Your task to perform on an android device: star an email in the gmail app Image 0: 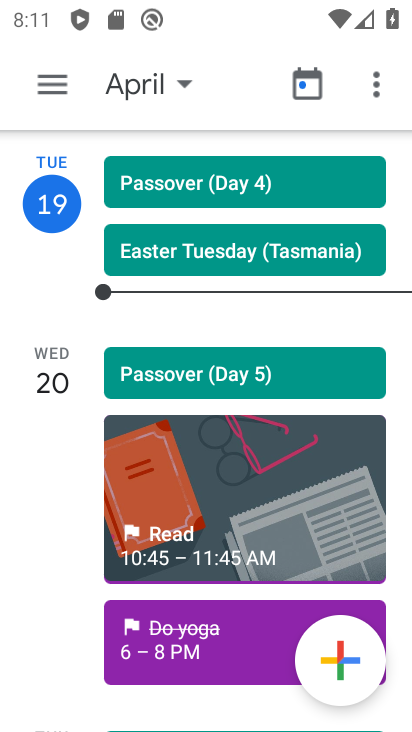
Step 0: press home button
Your task to perform on an android device: star an email in the gmail app Image 1: 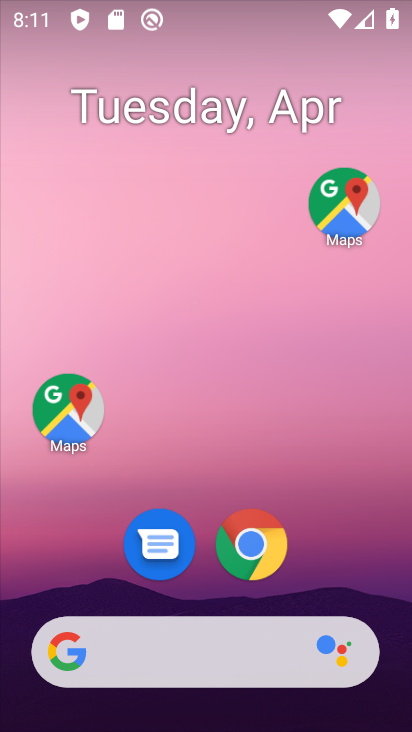
Step 1: drag from (183, 395) to (277, 82)
Your task to perform on an android device: star an email in the gmail app Image 2: 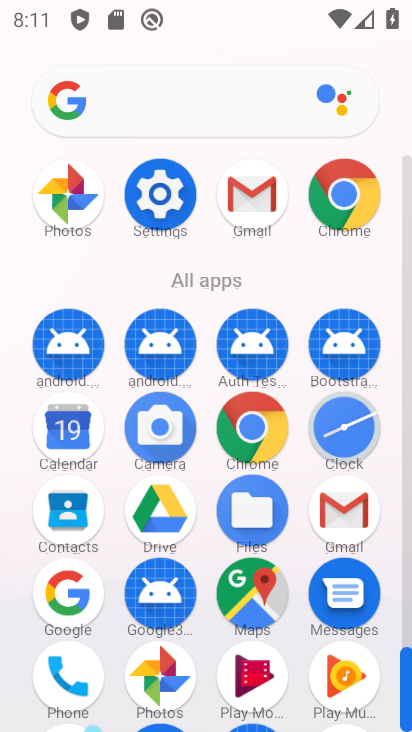
Step 2: click (258, 201)
Your task to perform on an android device: star an email in the gmail app Image 3: 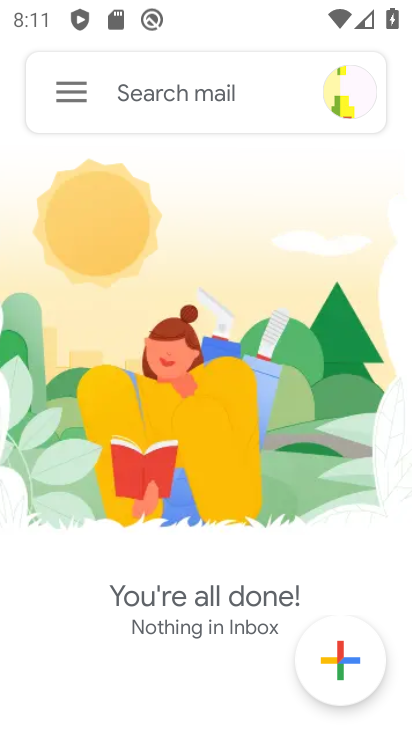
Step 3: task complete